Your task to perform on an android device: turn on improve location accuracy Image 0: 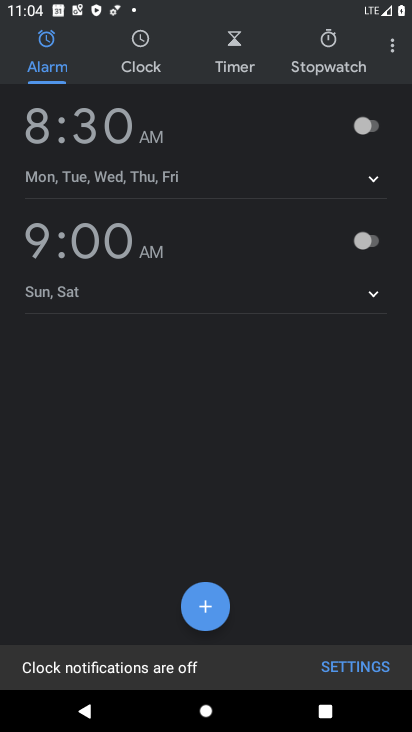
Step 0: press home button
Your task to perform on an android device: turn on improve location accuracy Image 1: 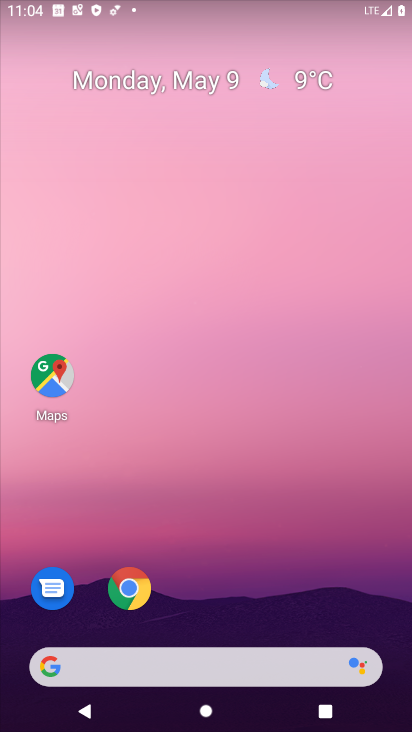
Step 1: drag from (186, 662) to (320, 87)
Your task to perform on an android device: turn on improve location accuracy Image 2: 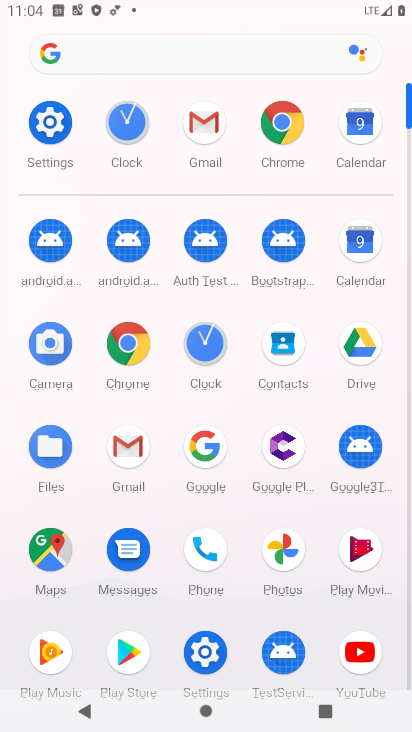
Step 2: click (55, 133)
Your task to perform on an android device: turn on improve location accuracy Image 3: 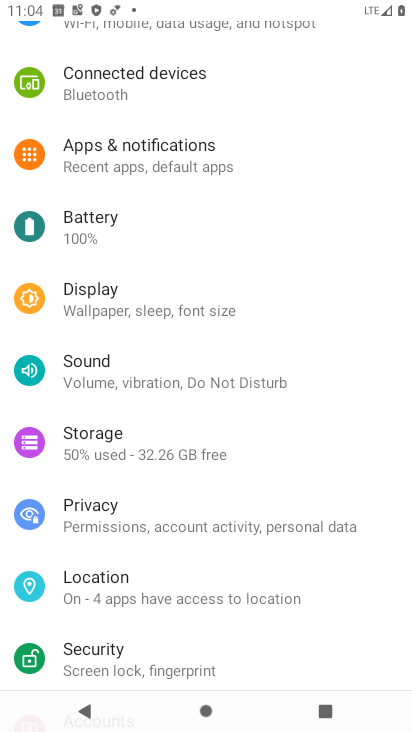
Step 3: click (119, 588)
Your task to perform on an android device: turn on improve location accuracy Image 4: 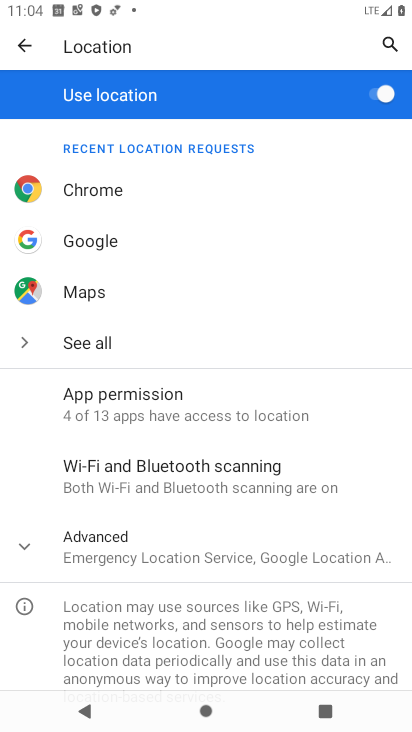
Step 4: click (106, 548)
Your task to perform on an android device: turn on improve location accuracy Image 5: 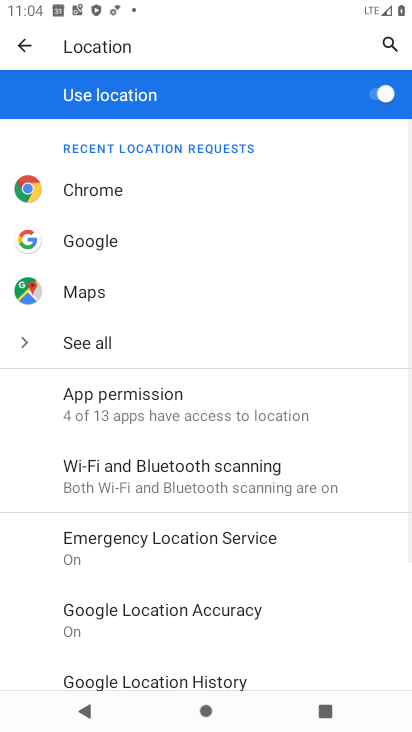
Step 5: drag from (186, 533) to (247, 312)
Your task to perform on an android device: turn on improve location accuracy Image 6: 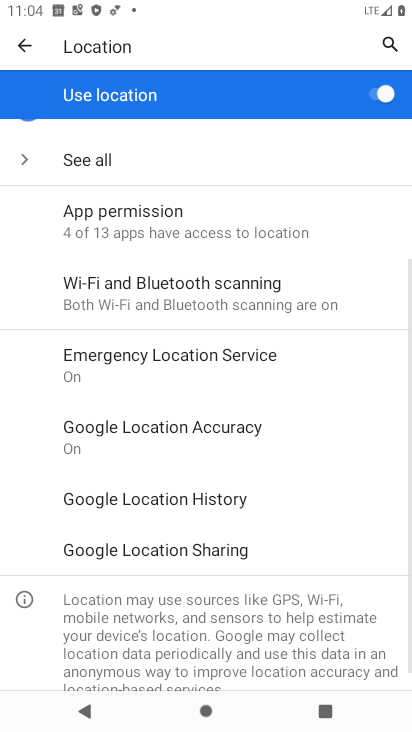
Step 6: click (174, 435)
Your task to perform on an android device: turn on improve location accuracy Image 7: 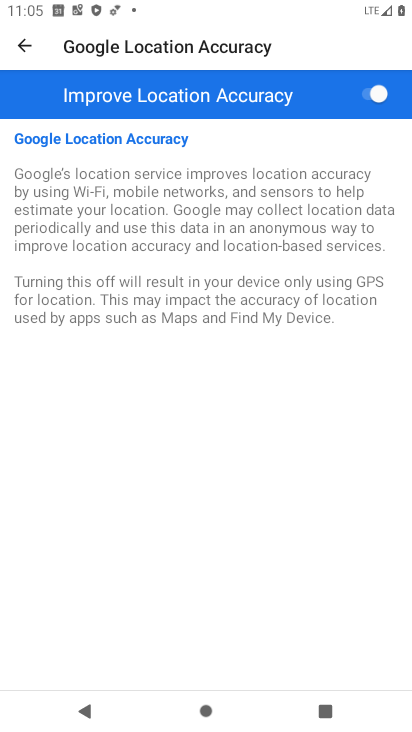
Step 7: task complete